Your task to perform on an android device: Open my contact list Image 0: 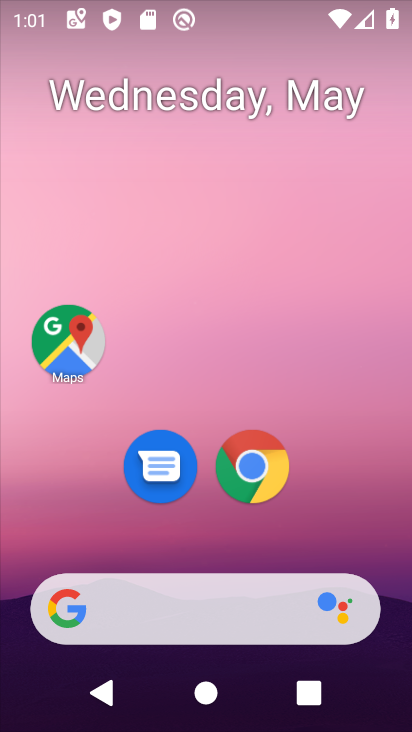
Step 0: drag from (218, 491) to (267, 62)
Your task to perform on an android device: Open my contact list Image 1: 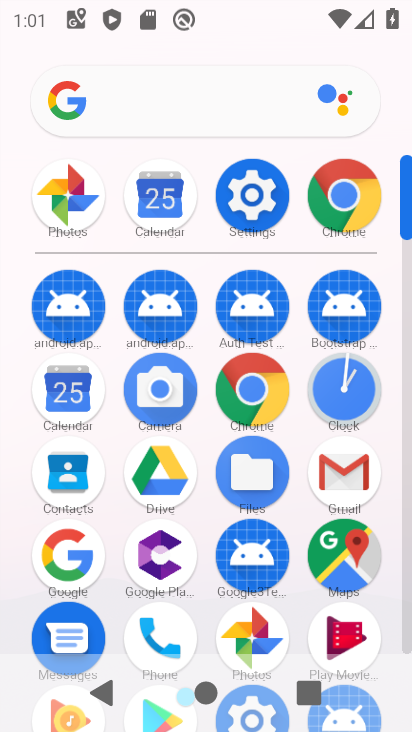
Step 1: click (71, 471)
Your task to perform on an android device: Open my contact list Image 2: 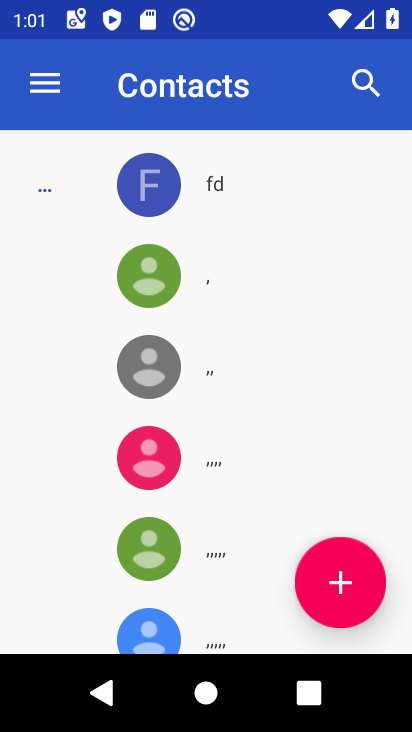
Step 2: task complete